Your task to perform on an android device: Go to ESPN.com Image 0: 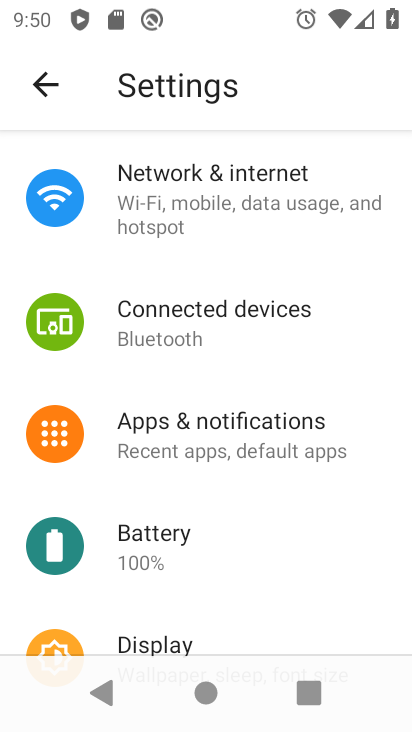
Step 0: press back button
Your task to perform on an android device: Go to ESPN.com Image 1: 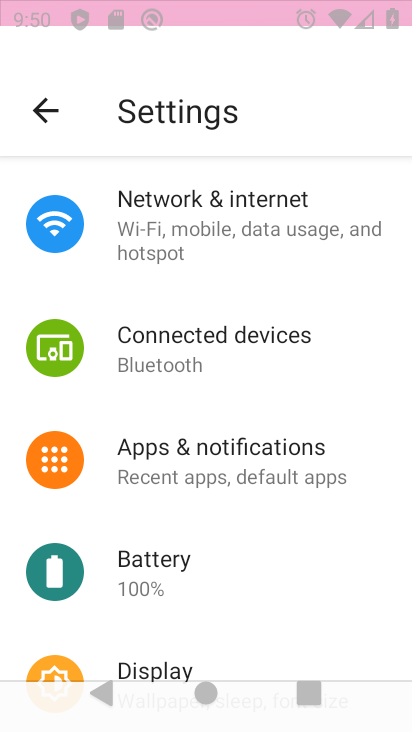
Step 1: press back button
Your task to perform on an android device: Go to ESPN.com Image 2: 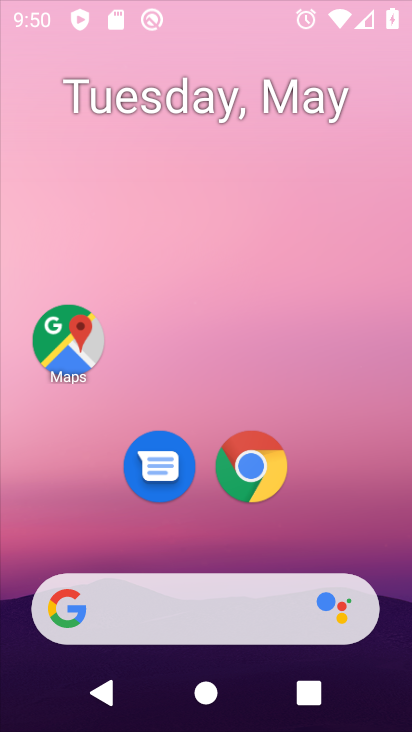
Step 2: press back button
Your task to perform on an android device: Go to ESPN.com Image 3: 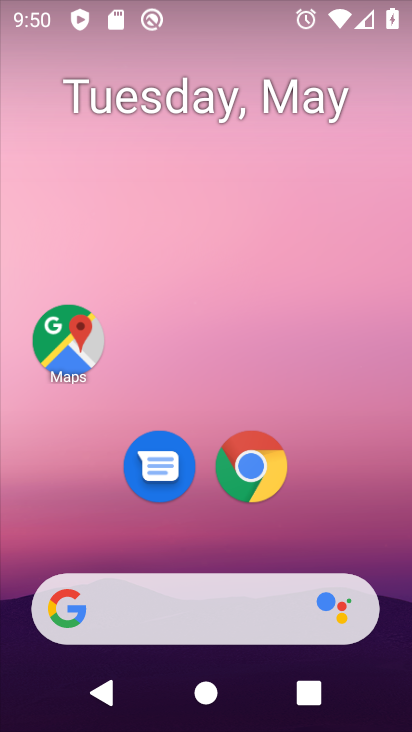
Step 3: drag from (354, 678) to (208, 76)
Your task to perform on an android device: Go to ESPN.com Image 4: 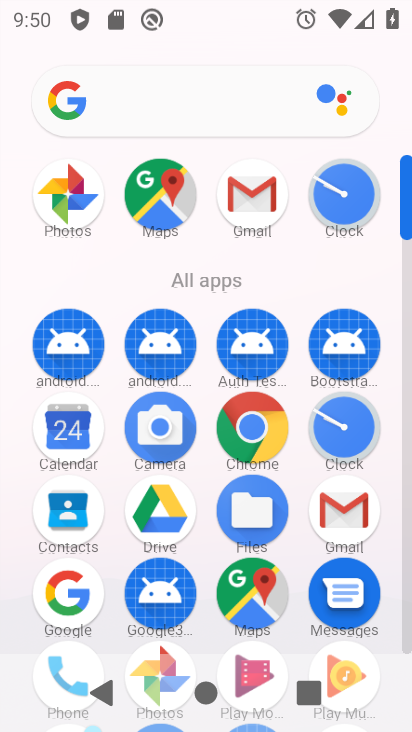
Step 4: click (248, 431)
Your task to perform on an android device: Go to ESPN.com Image 5: 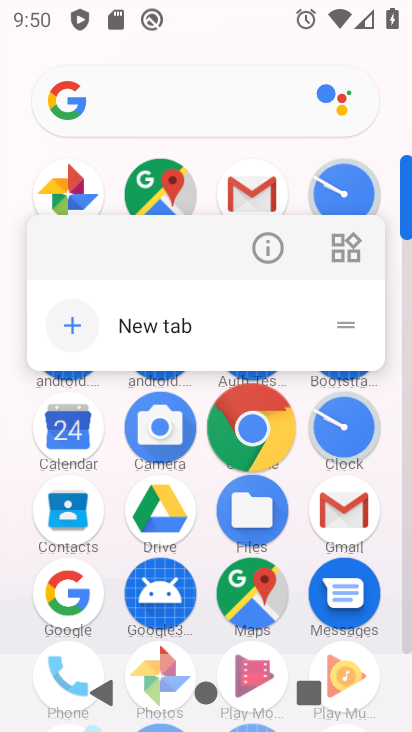
Step 5: click (248, 431)
Your task to perform on an android device: Go to ESPN.com Image 6: 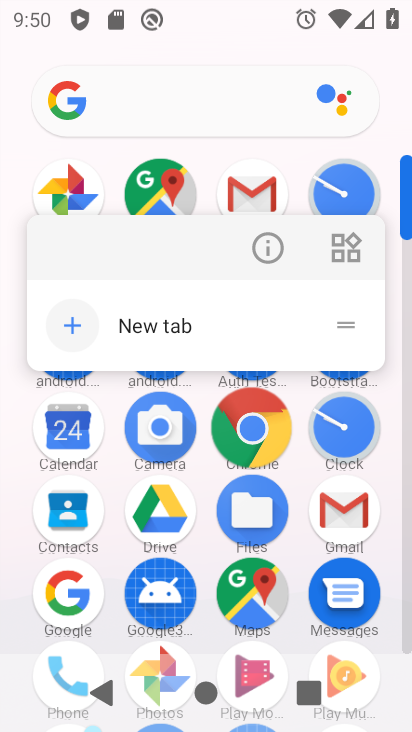
Step 6: click (248, 431)
Your task to perform on an android device: Go to ESPN.com Image 7: 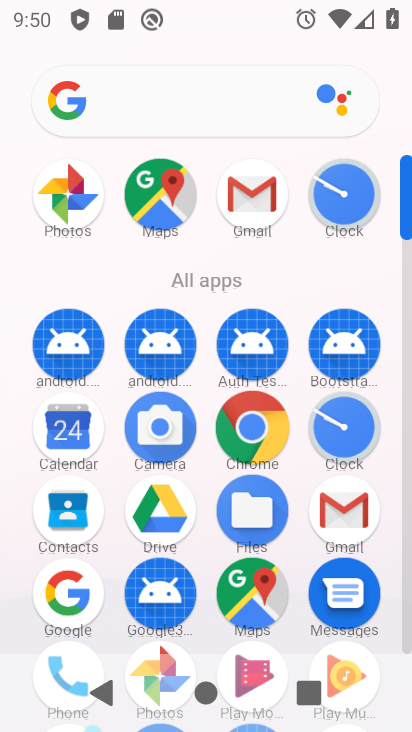
Step 7: click (248, 431)
Your task to perform on an android device: Go to ESPN.com Image 8: 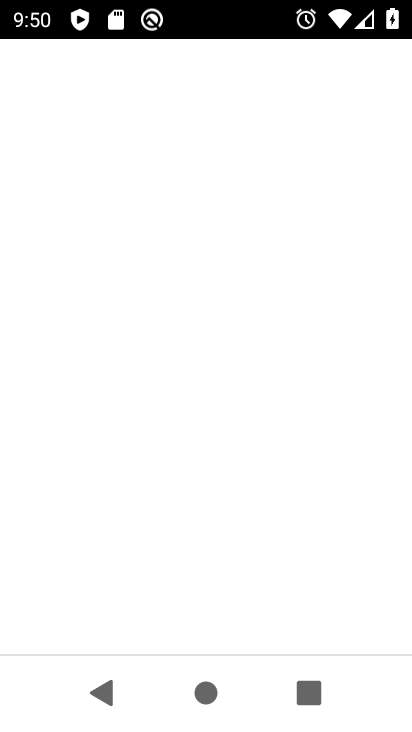
Step 8: click (248, 431)
Your task to perform on an android device: Go to ESPN.com Image 9: 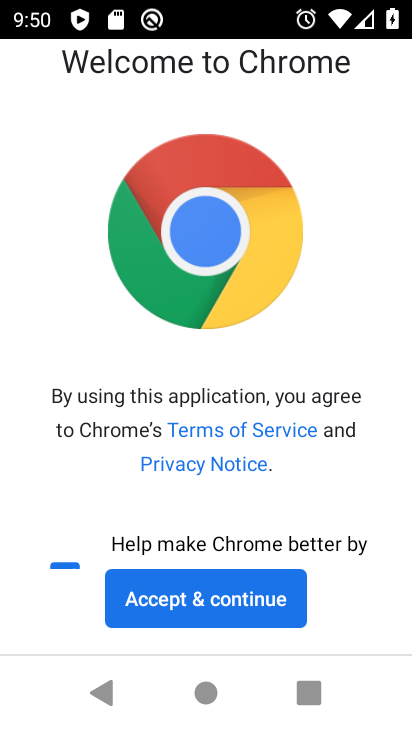
Step 9: click (231, 591)
Your task to perform on an android device: Go to ESPN.com Image 10: 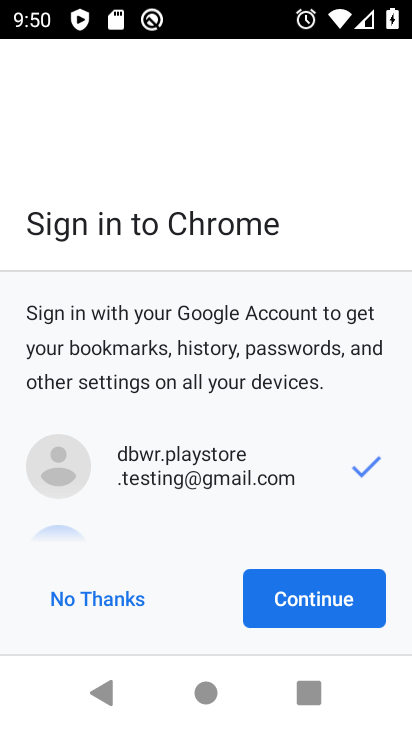
Step 10: click (83, 593)
Your task to perform on an android device: Go to ESPN.com Image 11: 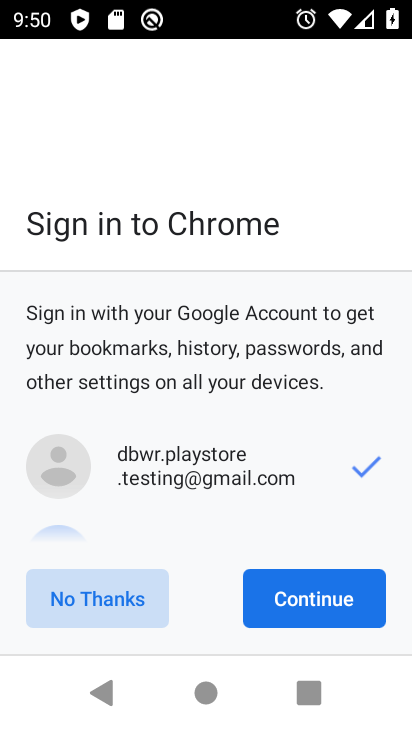
Step 11: click (84, 593)
Your task to perform on an android device: Go to ESPN.com Image 12: 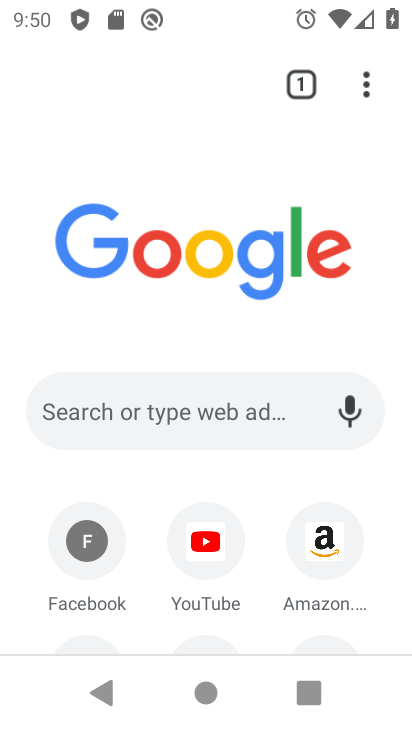
Step 12: click (290, 131)
Your task to perform on an android device: Go to ESPN.com Image 13: 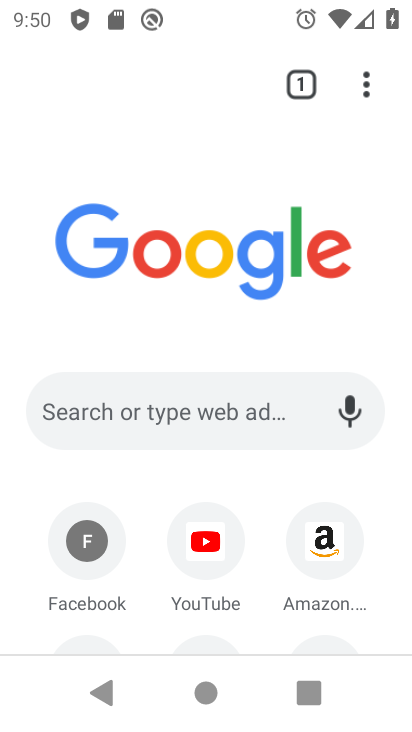
Step 13: drag from (296, 403) to (342, 44)
Your task to perform on an android device: Go to ESPN.com Image 14: 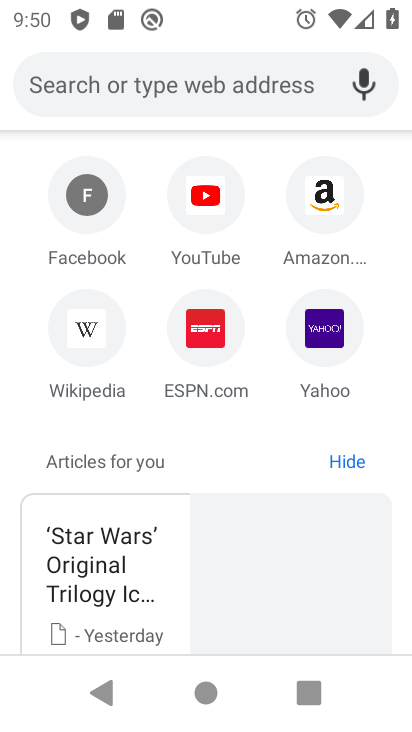
Step 14: drag from (244, 443) to (241, 183)
Your task to perform on an android device: Go to ESPN.com Image 15: 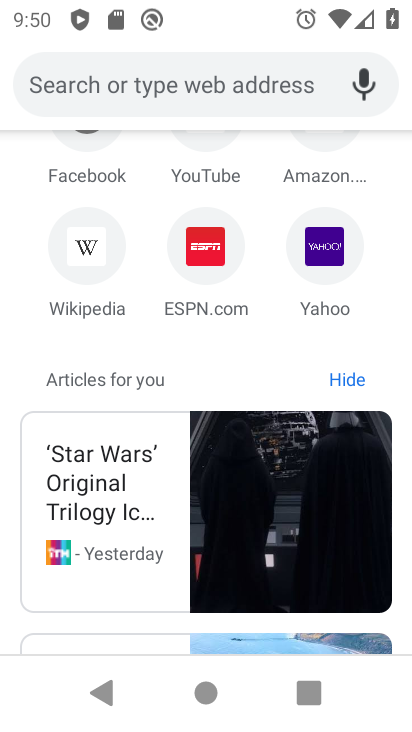
Step 15: click (198, 257)
Your task to perform on an android device: Go to ESPN.com Image 16: 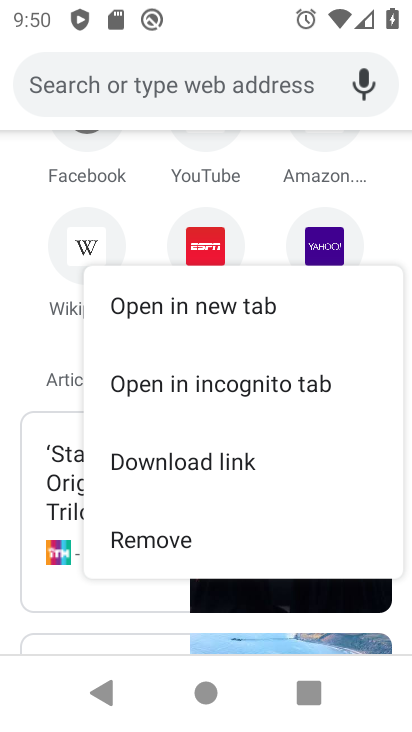
Step 16: click (198, 256)
Your task to perform on an android device: Go to ESPN.com Image 17: 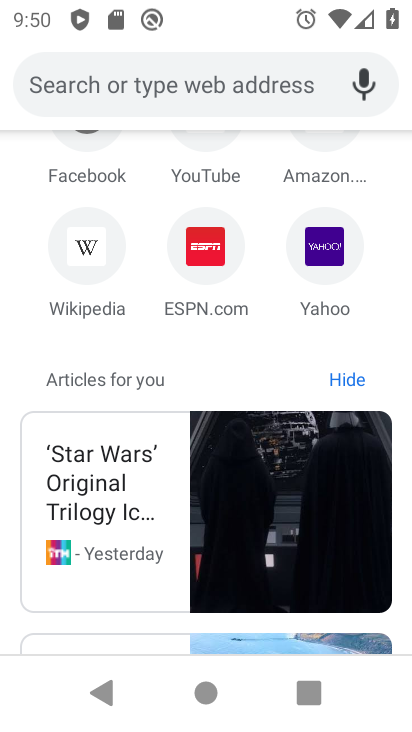
Step 17: click (204, 305)
Your task to perform on an android device: Go to ESPN.com Image 18: 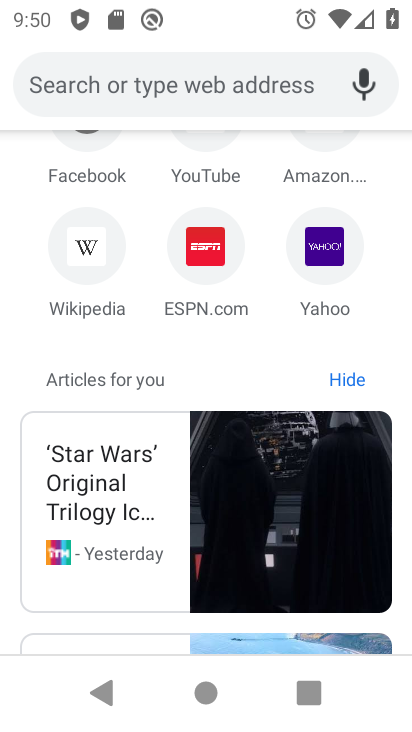
Step 18: click (204, 305)
Your task to perform on an android device: Go to ESPN.com Image 19: 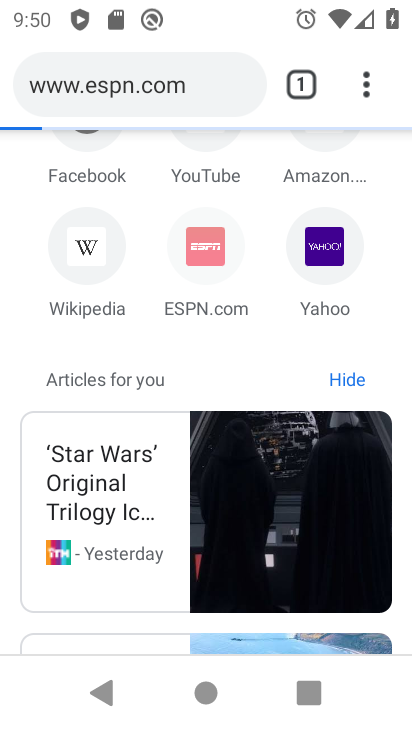
Step 19: click (210, 300)
Your task to perform on an android device: Go to ESPN.com Image 20: 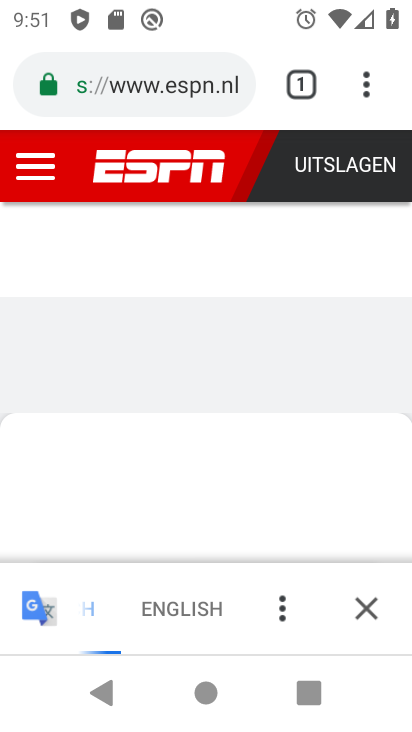
Step 20: task complete